Your task to perform on an android device: Open ESPN.com Image 0: 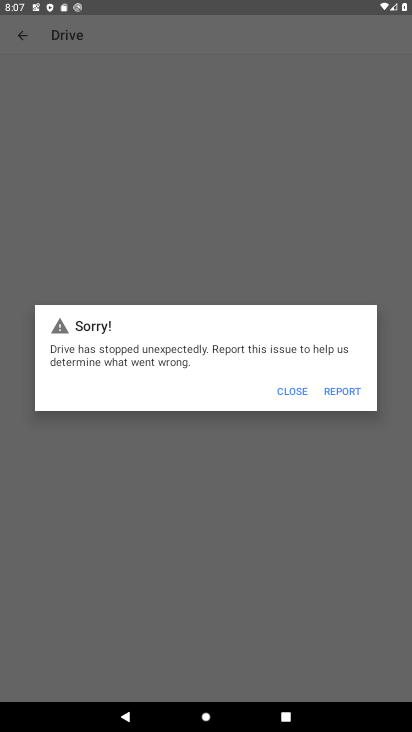
Step 0: press home button
Your task to perform on an android device: Open ESPN.com Image 1: 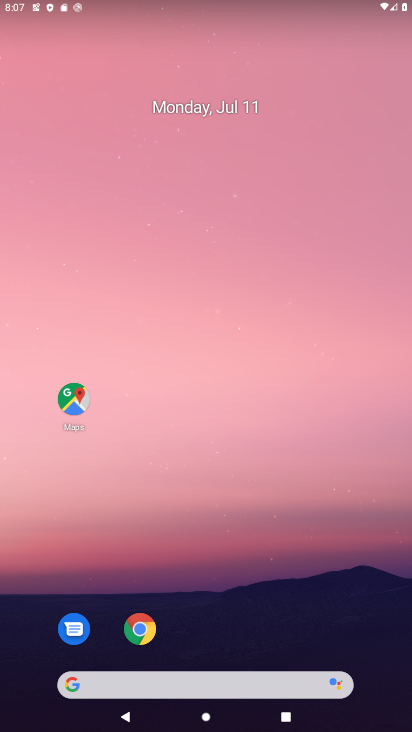
Step 1: drag from (241, 641) to (214, 162)
Your task to perform on an android device: Open ESPN.com Image 2: 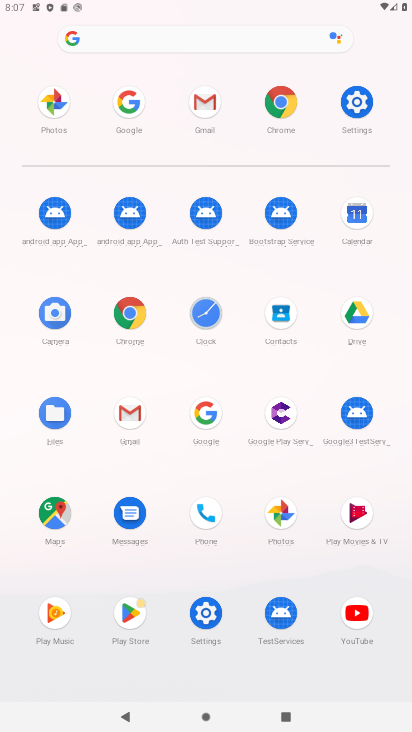
Step 2: click (129, 98)
Your task to perform on an android device: Open ESPN.com Image 3: 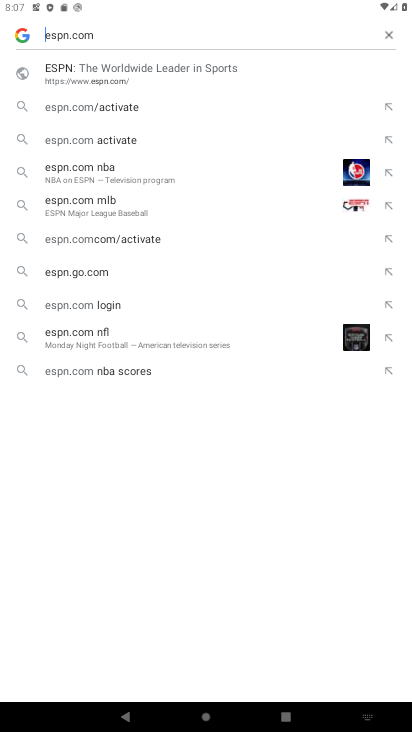
Step 3: click (145, 87)
Your task to perform on an android device: Open ESPN.com Image 4: 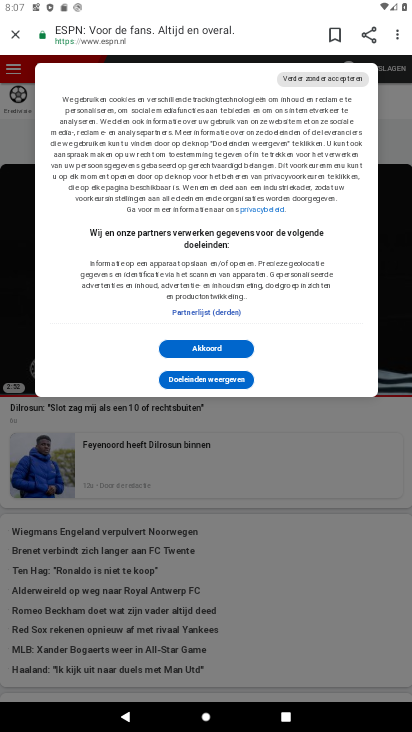
Step 4: task complete